Your task to perform on an android device: Go to settings Image 0: 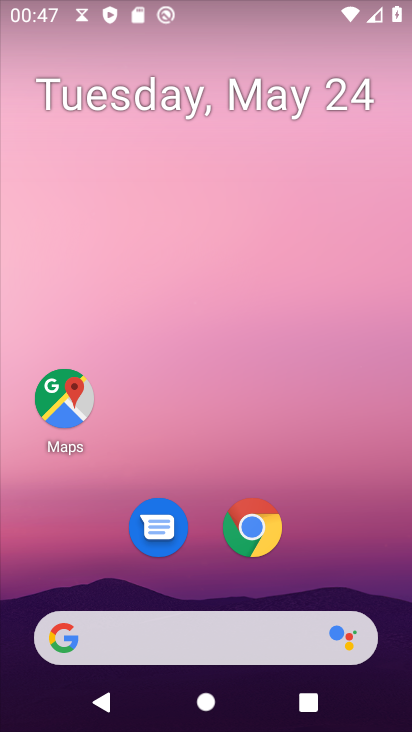
Step 0: drag from (176, 632) to (302, 105)
Your task to perform on an android device: Go to settings Image 1: 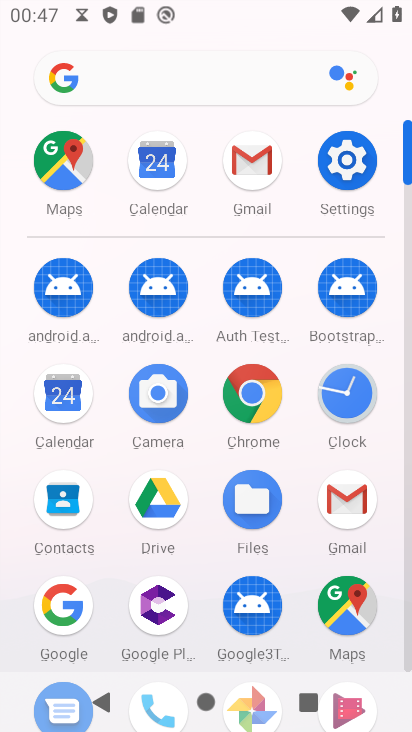
Step 1: click (351, 161)
Your task to perform on an android device: Go to settings Image 2: 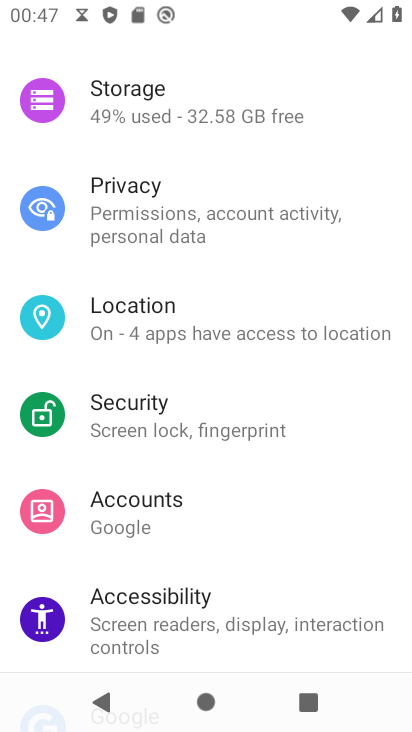
Step 2: task complete